Your task to perform on an android device: Open settings on Google Maps Image 0: 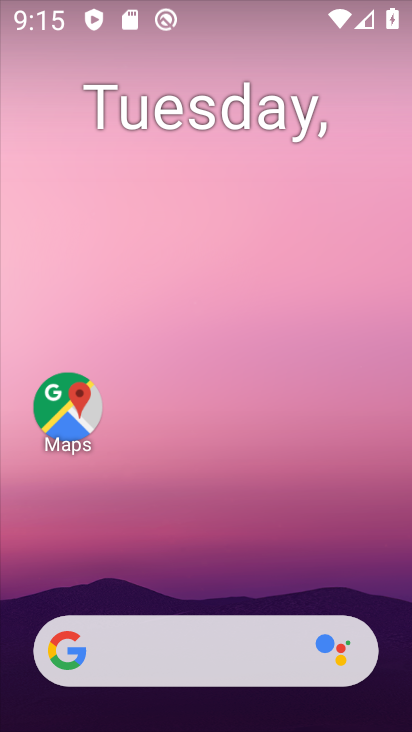
Step 0: drag from (219, 593) to (190, 125)
Your task to perform on an android device: Open settings on Google Maps Image 1: 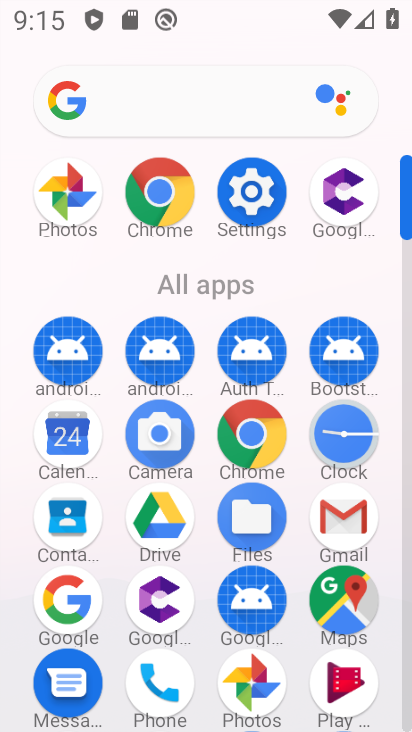
Step 1: click (335, 581)
Your task to perform on an android device: Open settings on Google Maps Image 2: 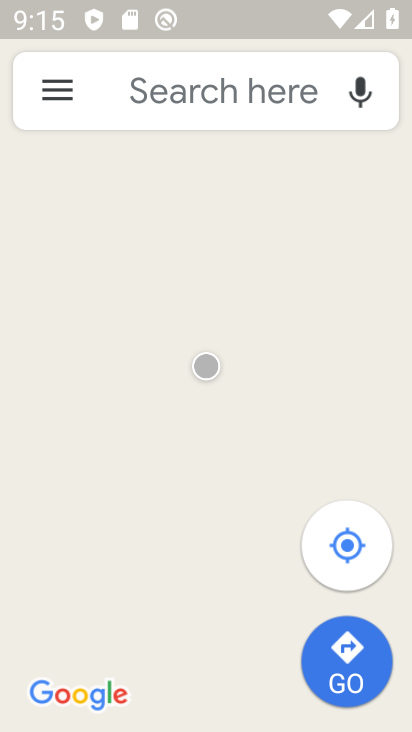
Step 2: click (55, 87)
Your task to perform on an android device: Open settings on Google Maps Image 3: 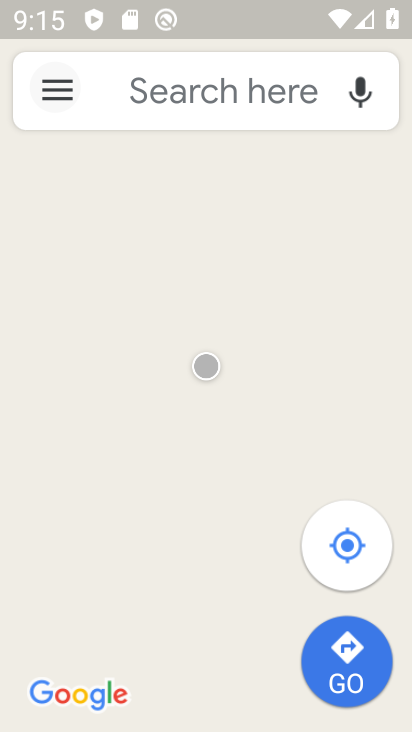
Step 3: click (55, 87)
Your task to perform on an android device: Open settings on Google Maps Image 4: 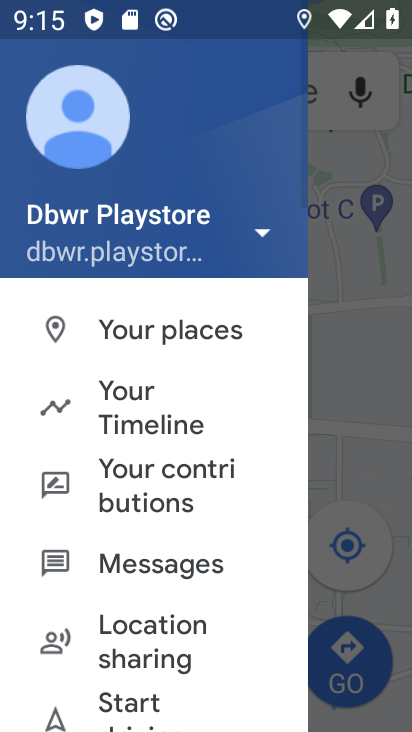
Step 4: drag from (219, 676) to (145, 249)
Your task to perform on an android device: Open settings on Google Maps Image 5: 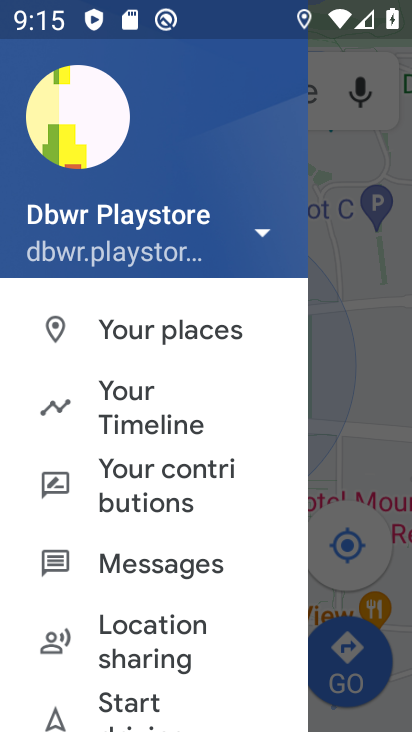
Step 5: drag from (153, 522) to (129, 195)
Your task to perform on an android device: Open settings on Google Maps Image 6: 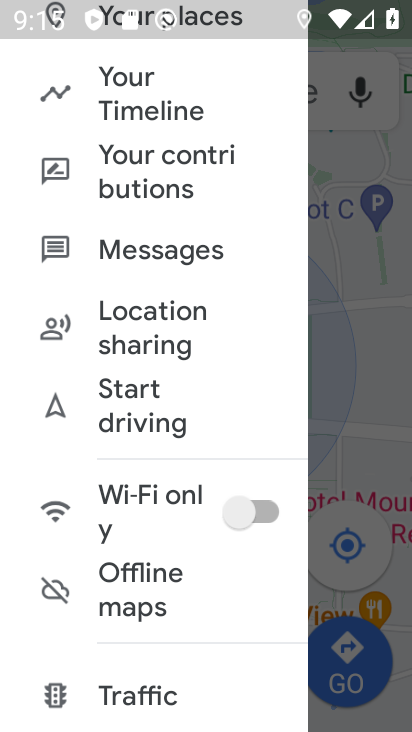
Step 6: drag from (146, 585) to (127, 253)
Your task to perform on an android device: Open settings on Google Maps Image 7: 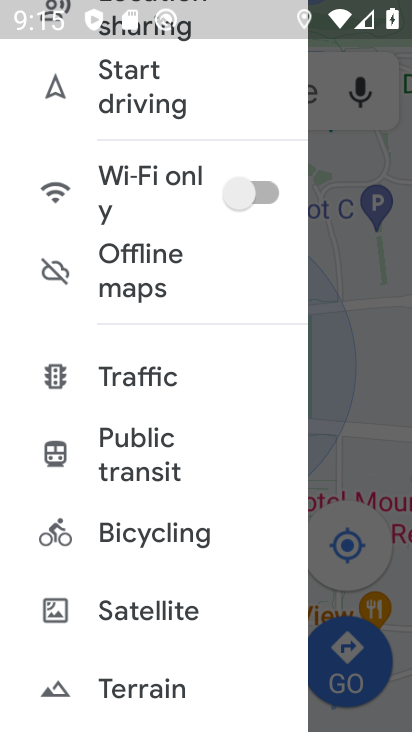
Step 7: drag from (151, 689) to (121, 295)
Your task to perform on an android device: Open settings on Google Maps Image 8: 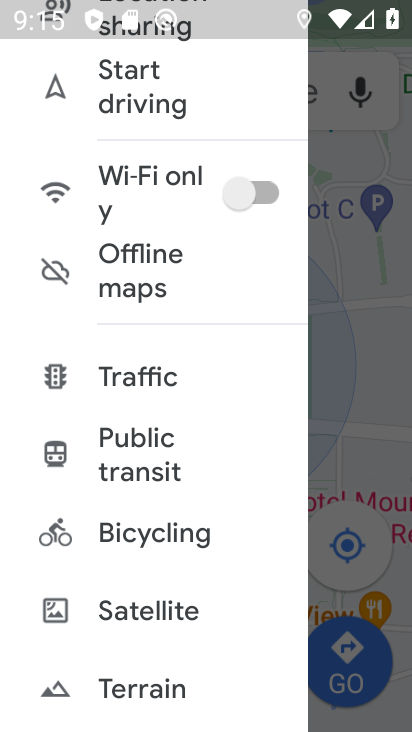
Step 8: drag from (140, 590) to (112, 222)
Your task to perform on an android device: Open settings on Google Maps Image 9: 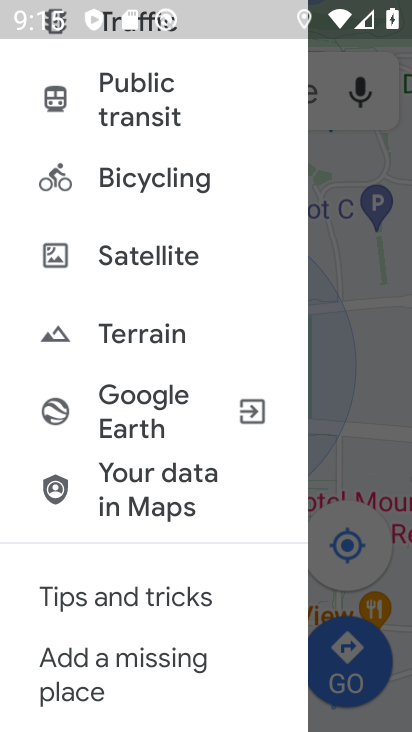
Step 9: drag from (152, 572) to (111, 193)
Your task to perform on an android device: Open settings on Google Maps Image 10: 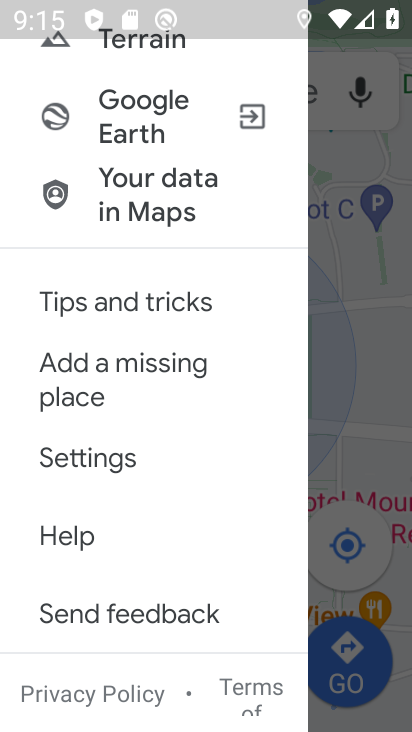
Step 10: click (111, 464)
Your task to perform on an android device: Open settings on Google Maps Image 11: 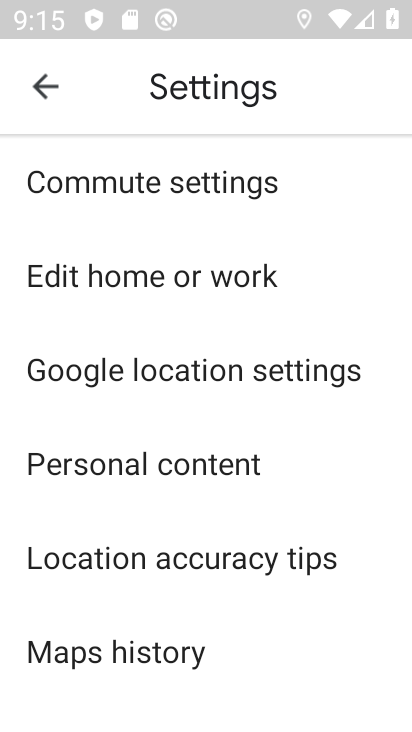
Step 11: task complete